Your task to perform on an android device: toggle translation in the chrome app Image 0: 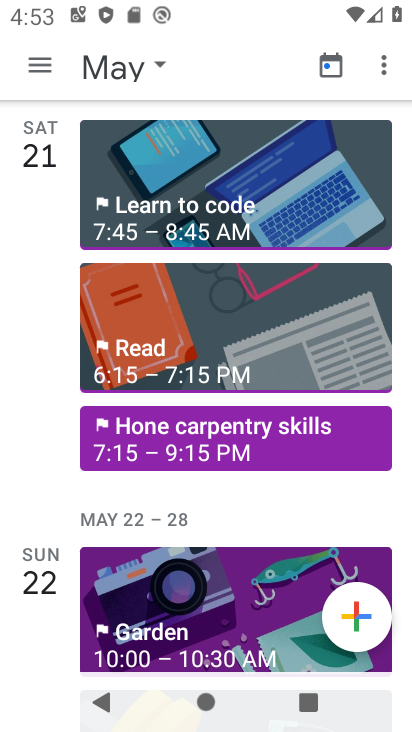
Step 0: press home button
Your task to perform on an android device: toggle translation in the chrome app Image 1: 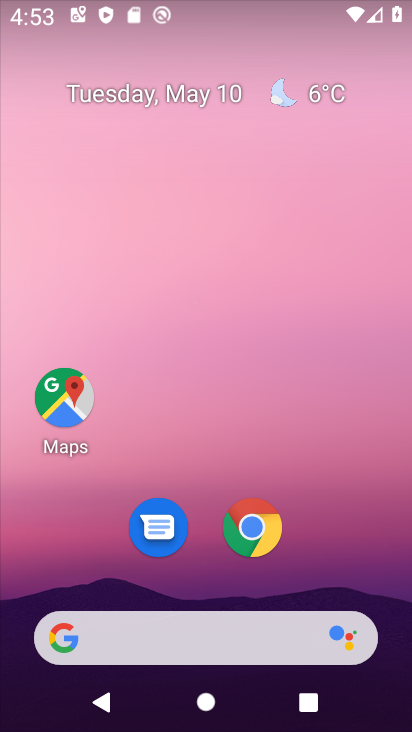
Step 1: click (247, 527)
Your task to perform on an android device: toggle translation in the chrome app Image 2: 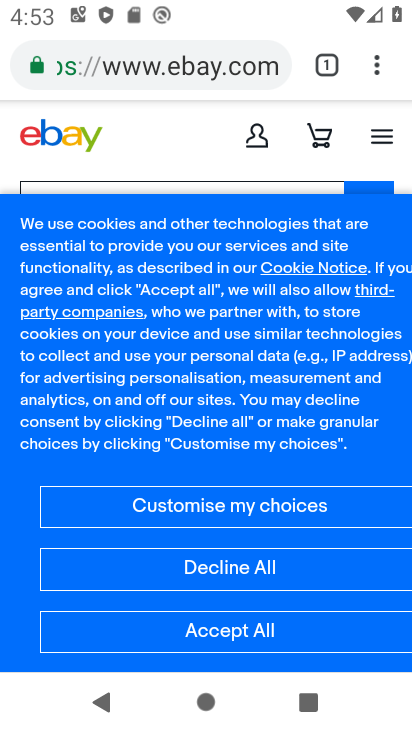
Step 2: click (370, 61)
Your task to perform on an android device: toggle translation in the chrome app Image 3: 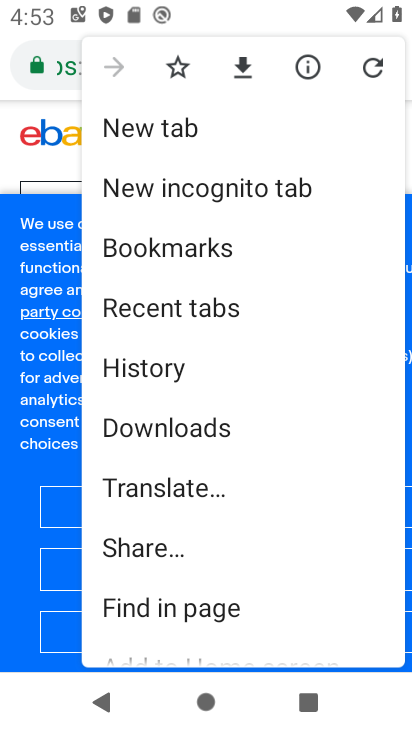
Step 3: drag from (191, 598) to (198, 348)
Your task to perform on an android device: toggle translation in the chrome app Image 4: 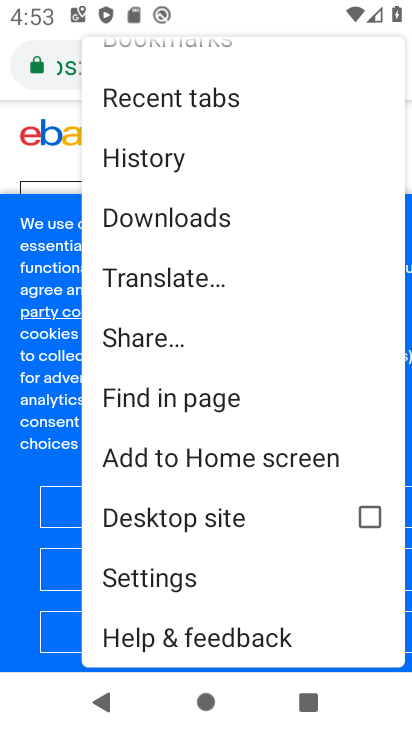
Step 4: click (186, 578)
Your task to perform on an android device: toggle translation in the chrome app Image 5: 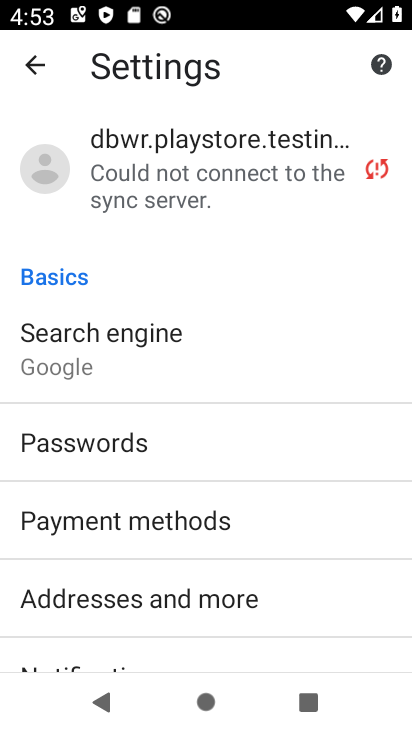
Step 5: drag from (195, 615) to (170, 415)
Your task to perform on an android device: toggle translation in the chrome app Image 6: 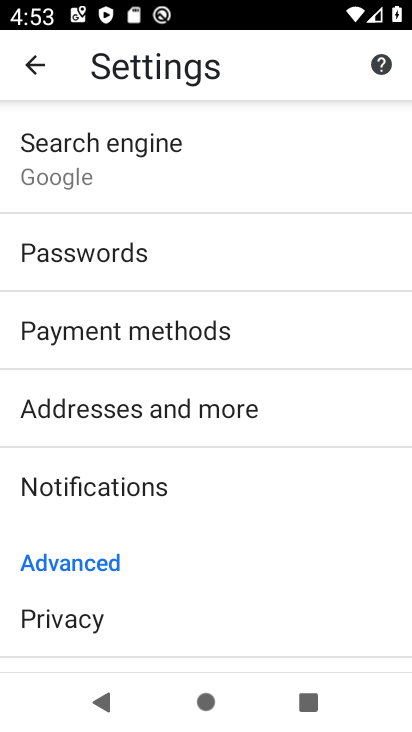
Step 6: drag from (180, 609) to (170, 406)
Your task to perform on an android device: toggle translation in the chrome app Image 7: 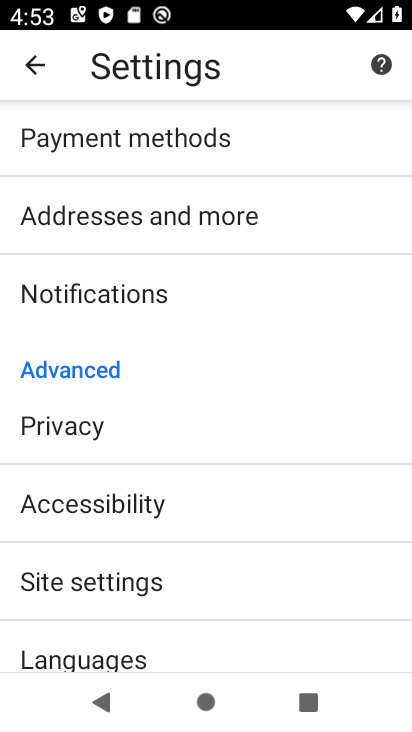
Step 7: click (129, 640)
Your task to perform on an android device: toggle translation in the chrome app Image 8: 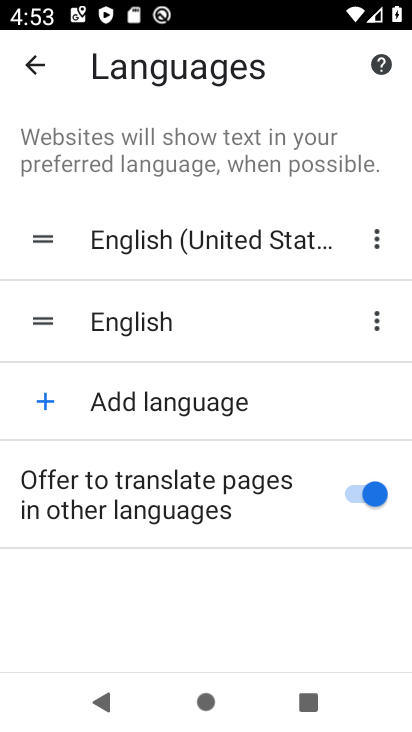
Step 8: click (357, 507)
Your task to perform on an android device: toggle translation in the chrome app Image 9: 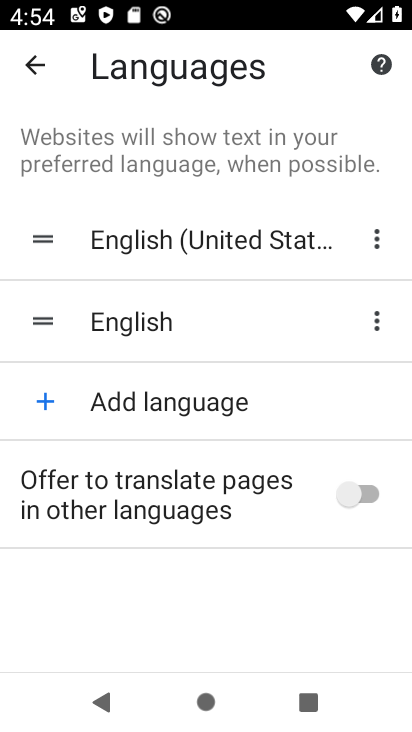
Step 9: task complete